Your task to perform on an android device: Open Yahoo.com Image 0: 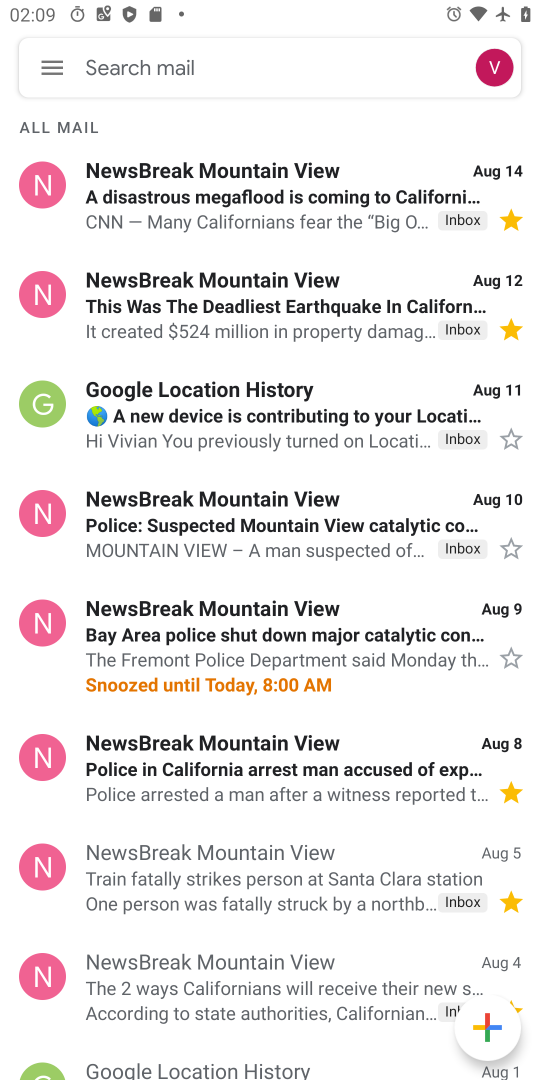
Step 0: press home button
Your task to perform on an android device: Open Yahoo.com Image 1: 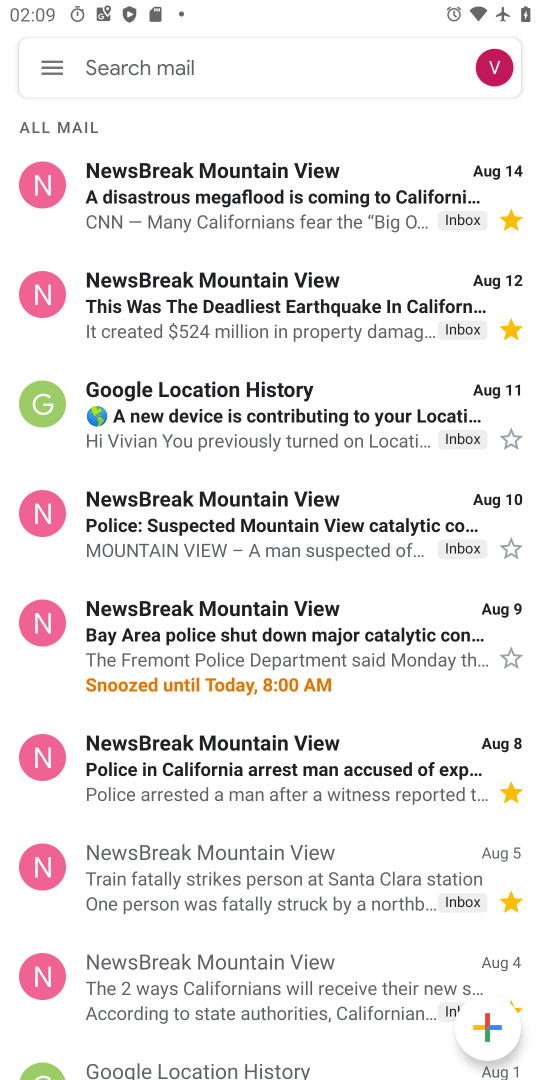
Step 1: press home button
Your task to perform on an android device: Open Yahoo.com Image 2: 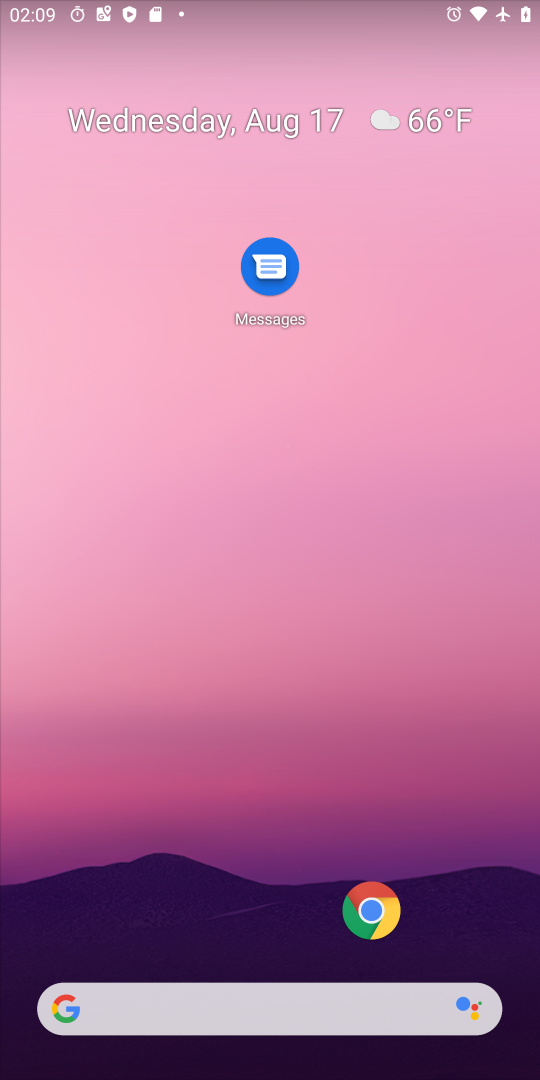
Step 2: drag from (256, 878) to (241, 119)
Your task to perform on an android device: Open Yahoo.com Image 3: 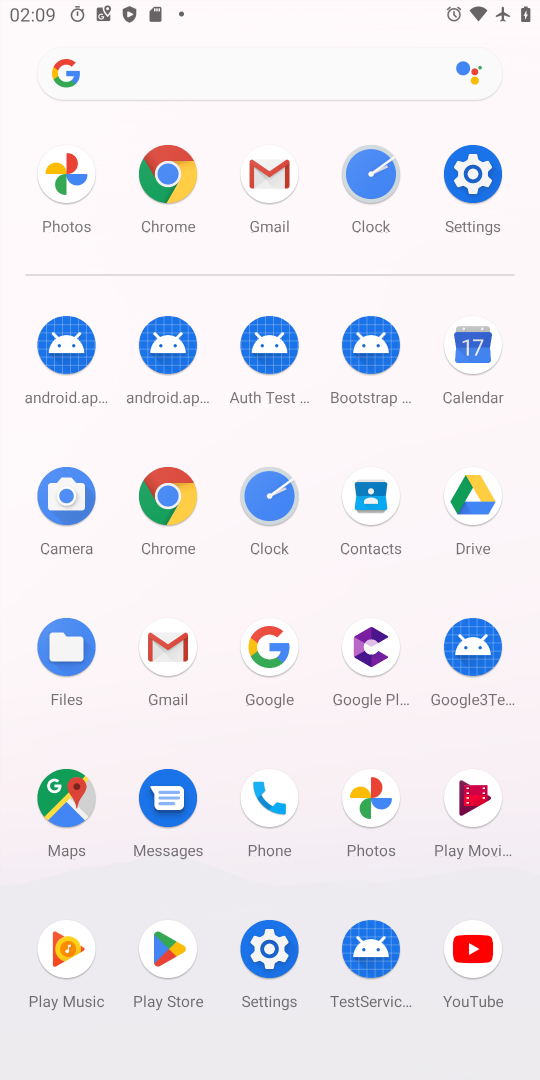
Step 3: click (162, 504)
Your task to perform on an android device: Open Yahoo.com Image 4: 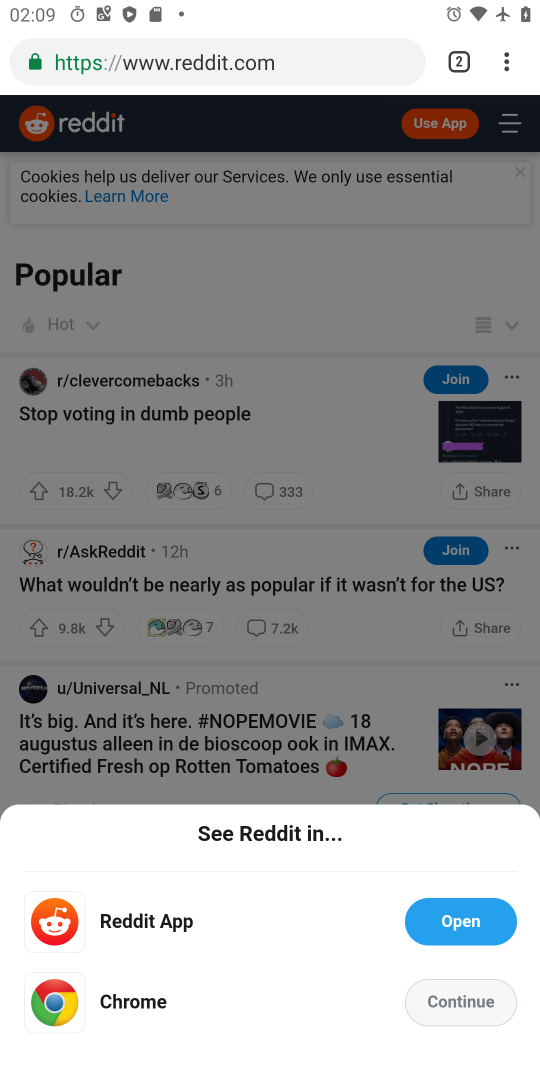
Step 4: click (225, 69)
Your task to perform on an android device: Open Yahoo.com Image 5: 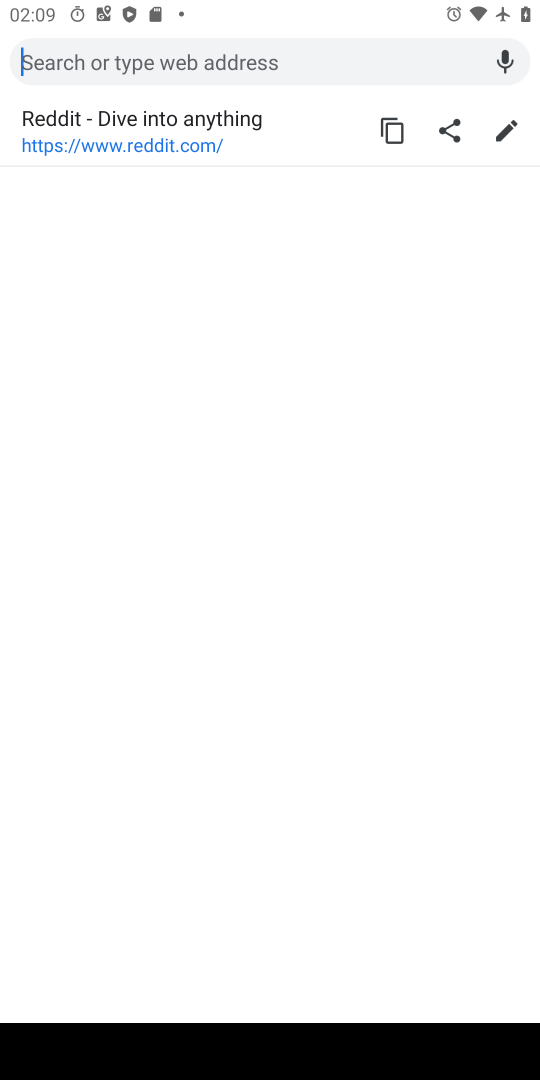
Step 5: type "yahoo.com"
Your task to perform on an android device: Open Yahoo.com Image 6: 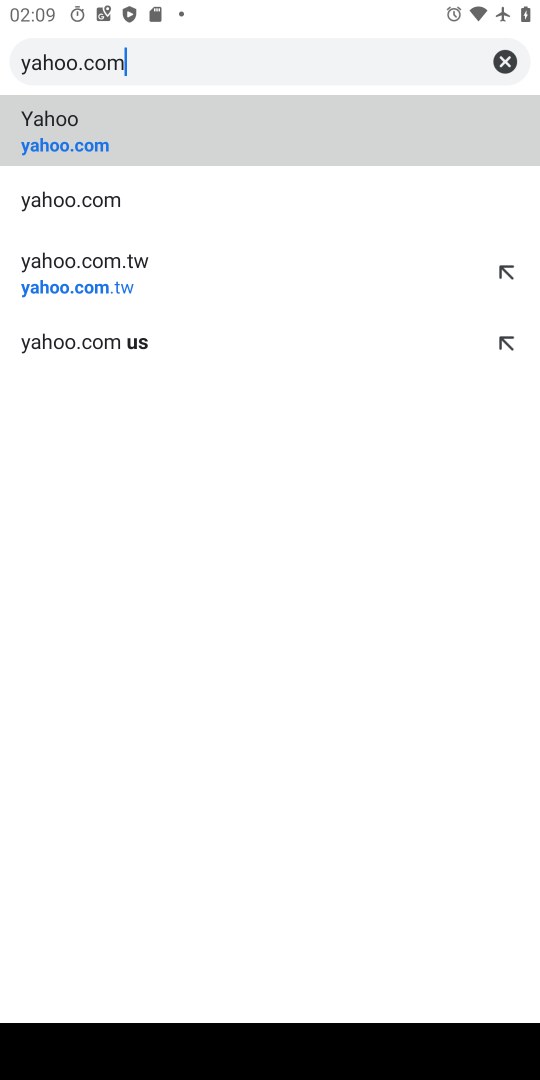
Step 6: click (38, 117)
Your task to perform on an android device: Open Yahoo.com Image 7: 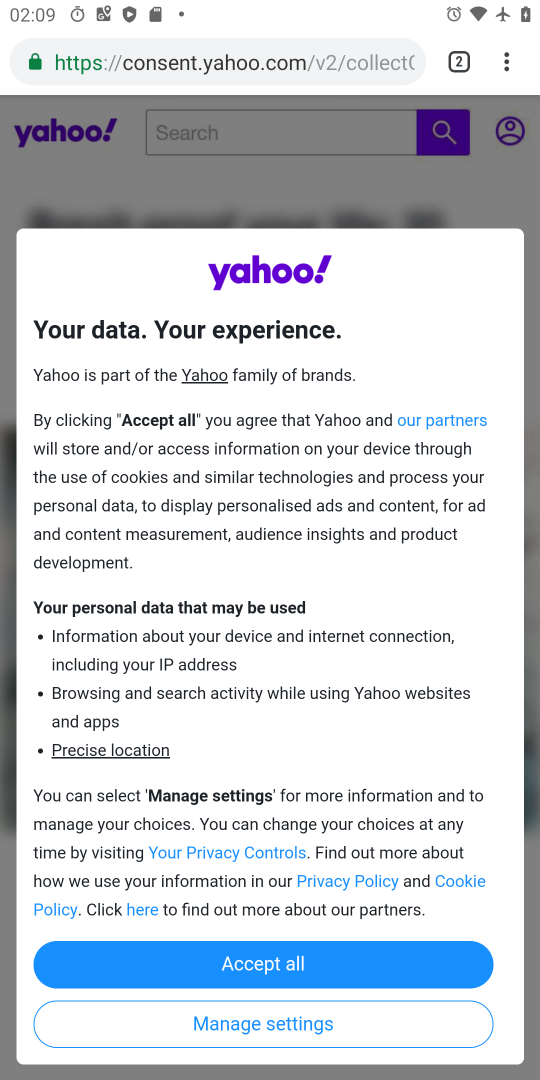
Step 7: task complete